Your task to perform on an android device: clear all cookies in the chrome app Image 0: 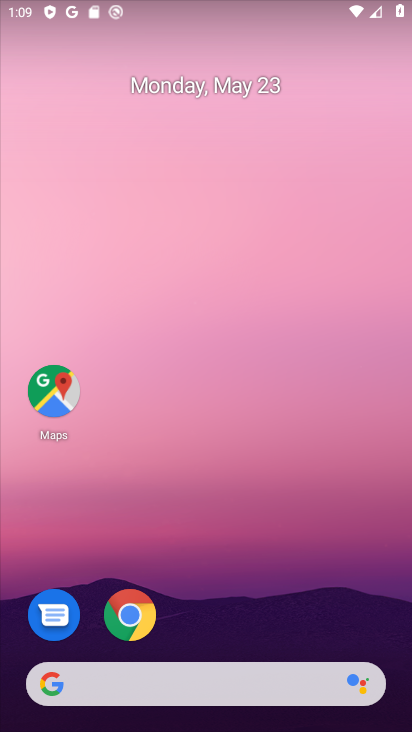
Step 0: drag from (203, 639) to (186, 60)
Your task to perform on an android device: clear all cookies in the chrome app Image 1: 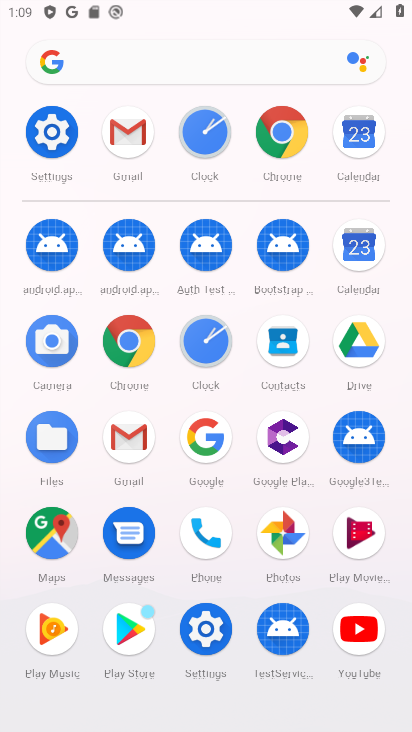
Step 1: click (106, 356)
Your task to perform on an android device: clear all cookies in the chrome app Image 2: 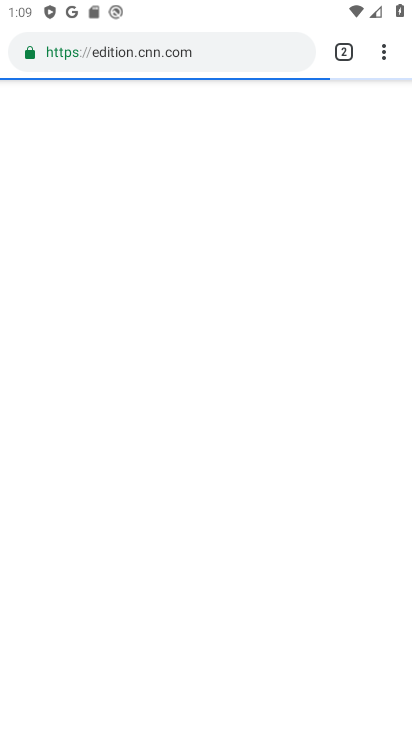
Step 2: click (388, 56)
Your task to perform on an android device: clear all cookies in the chrome app Image 3: 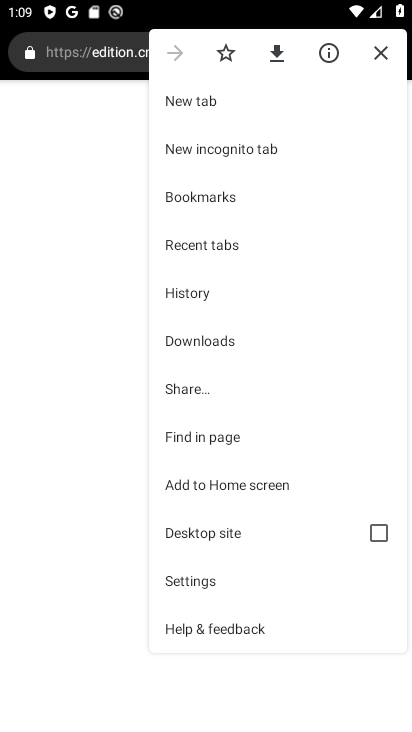
Step 3: click (184, 575)
Your task to perform on an android device: clear all cookies in the chrome app Image 4: 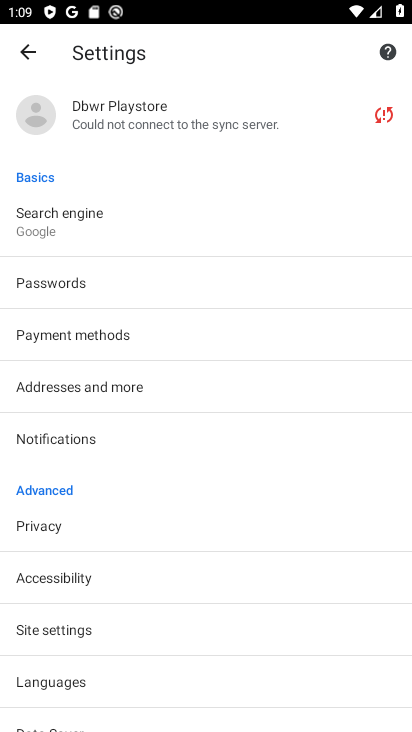
Step 4: click (45, 520)
Your task to perform on an android device: clear all cookies in the chrome app Image 5: 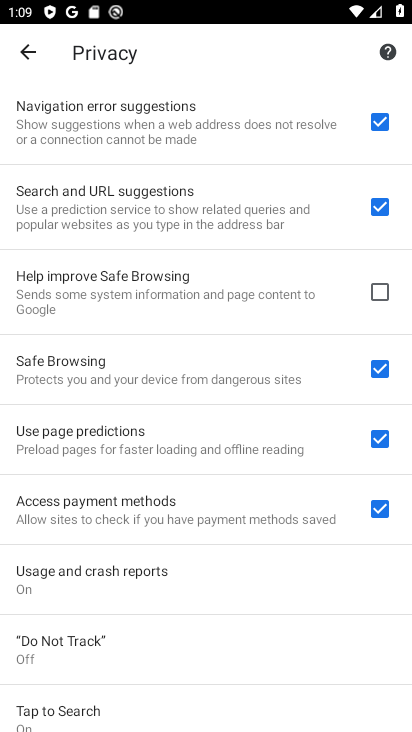
Step 5: drag from (165, 688) to (155, 149)
Your task to perform on an android device: clear all cookies in the chrome app Image 6: 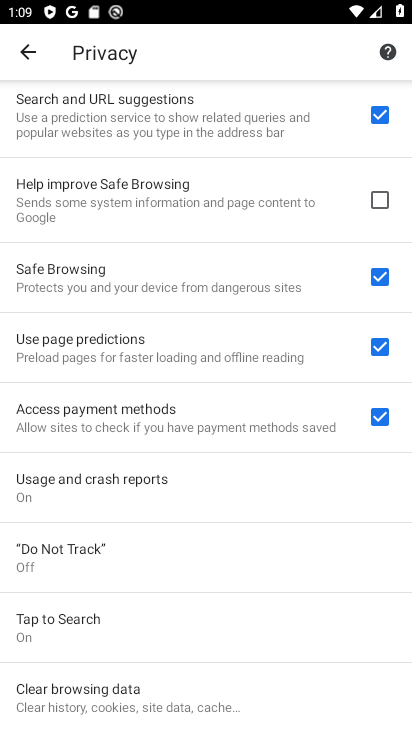
Step 6: click (88, 720)
Your task to perform on an android device: clear all cookies in the chrome app Image 7: 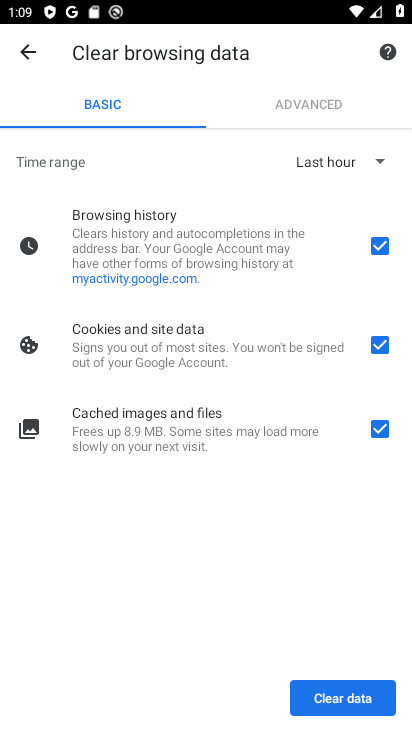
Step 7: click (353, 695)
Your task to perform on an android device: clear all cookies in the chrome app Image 8: 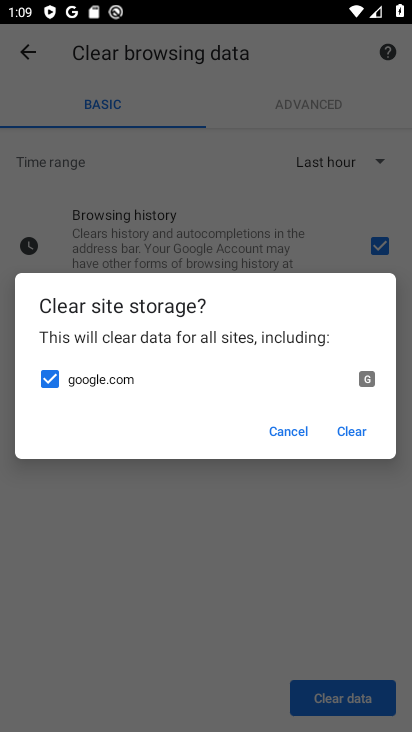
Step 8: click (356, 427)
Your task to perform on an android device: clear all cookies in the chrome app Image 9: 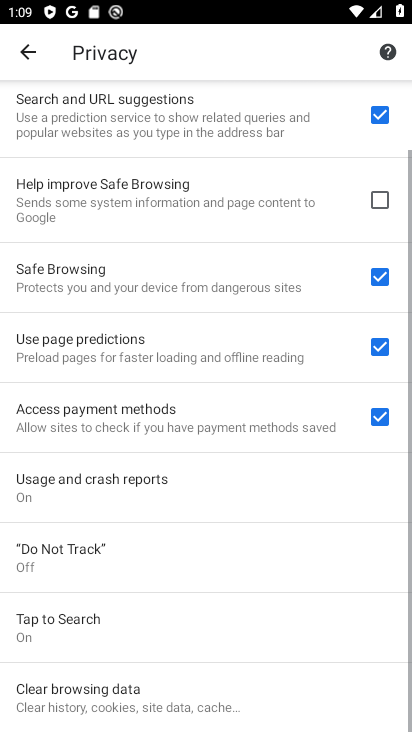
Step 9: task complete